Your task to perform on an android device: Open settings on Google Maps Image 0: 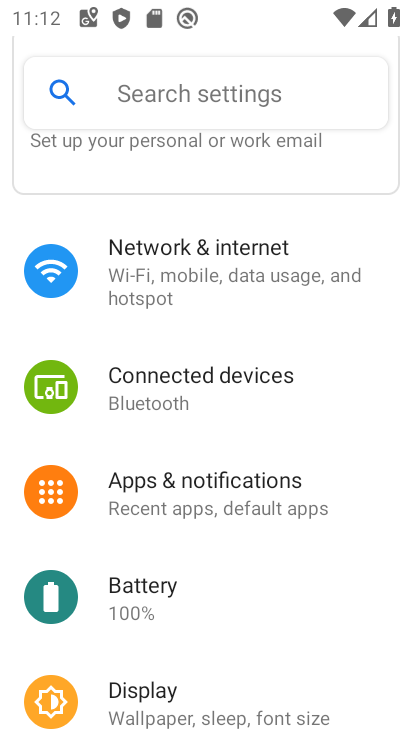
Step 0: drag from (200, 563) to (232, 253)
Your task to perform on an android device: Open settings on Google Maps Image 1: 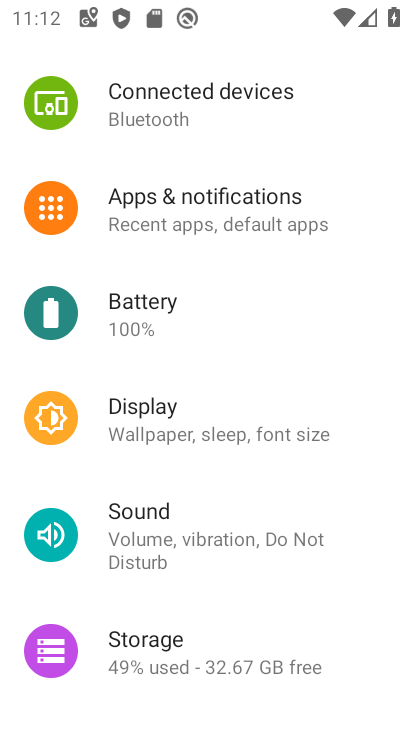
Step 1: press home button
Your task to perform on an android device: Open settings on Google Maps Image 2: 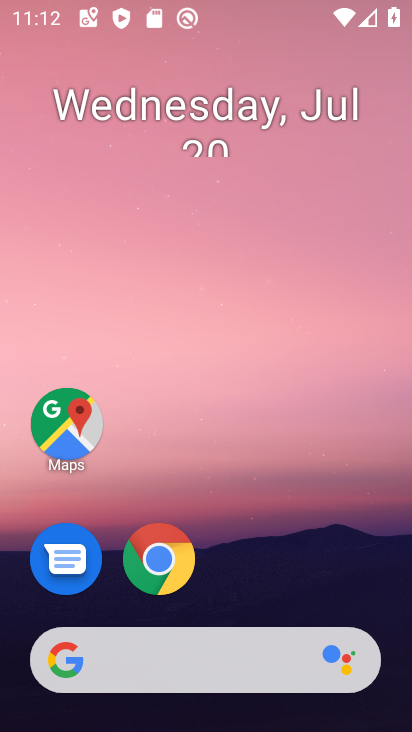
Step 2: drag from (167, 569) to (167, 128)
Your task to perform on an android device: Open settings on Google Maps Image 3: 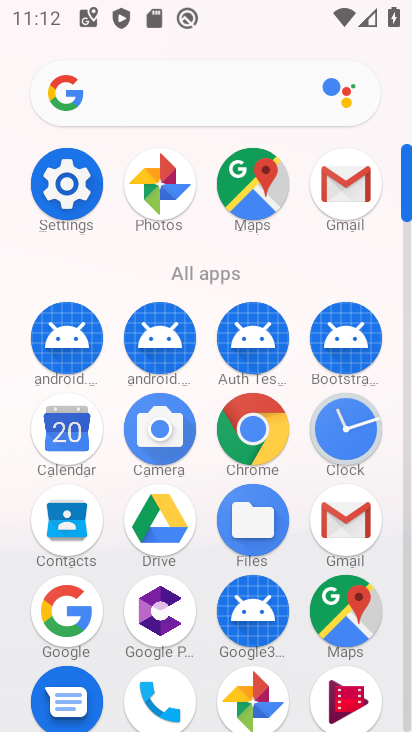
Step 3: click (345, 611)
Your task to perform on an android device: Open settings on Google Maps Image 4: 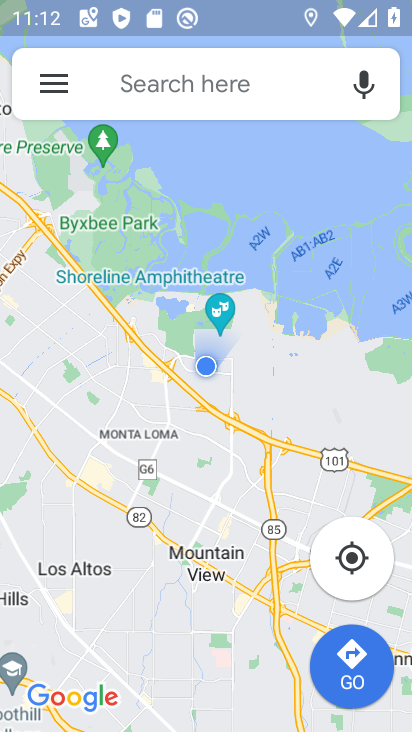
Step 4: click (62, 77)
Your task to perform on an android device: Open settings on Google Maps Image 5: 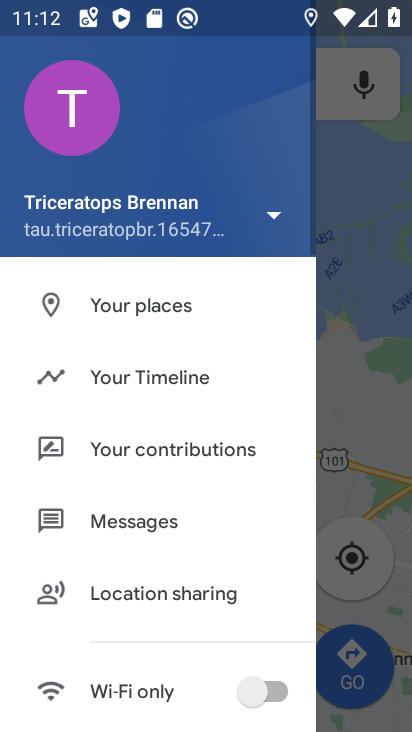
Step 5: drag from (113, 455) to (146, 55)
Your task to perform on an android device: Open settings on Google Maps Image 6: 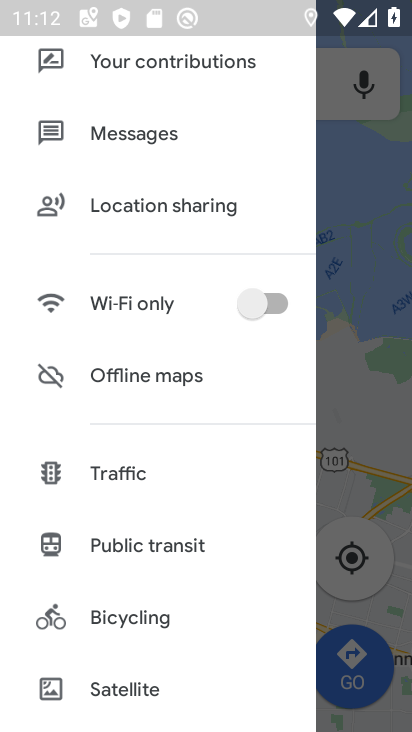
Step 6: drag from (177, 536) to (179, 33)
Your task to perform on an android device: Open settings on Google Maps Image 7: 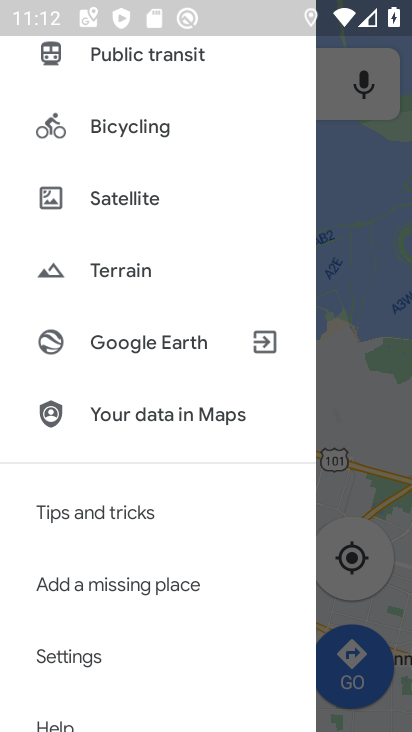
Step 7: click (73, 664)
Your task to perform on an android device: Open settings on Google Maps Image 8: 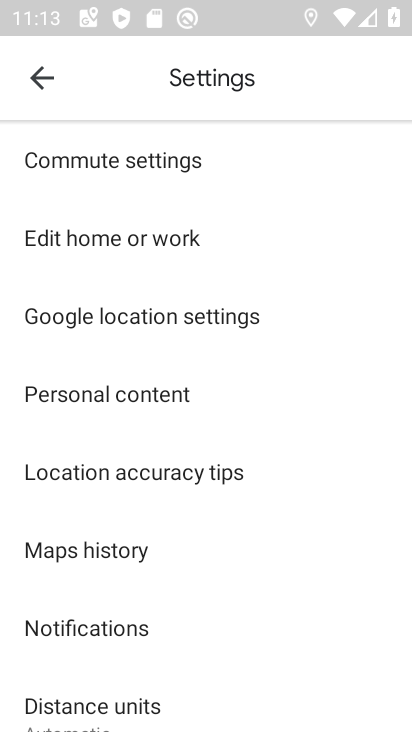
Step 8: task complete